Your task to perform on an android device: Go to Google Image 0: 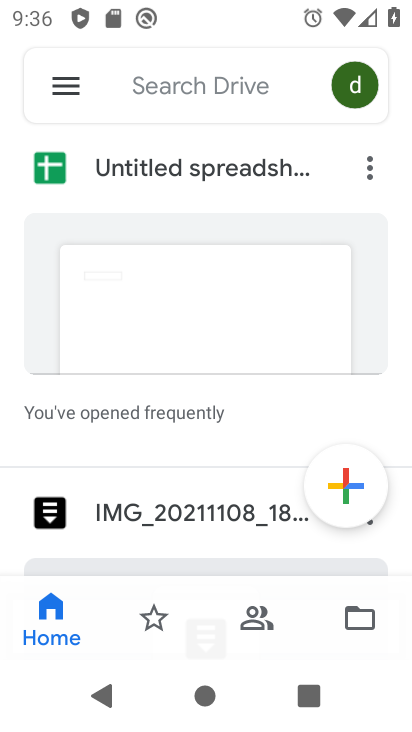
Step 0: press home button
Your task to perform on an android device: Go to Google Image 1: 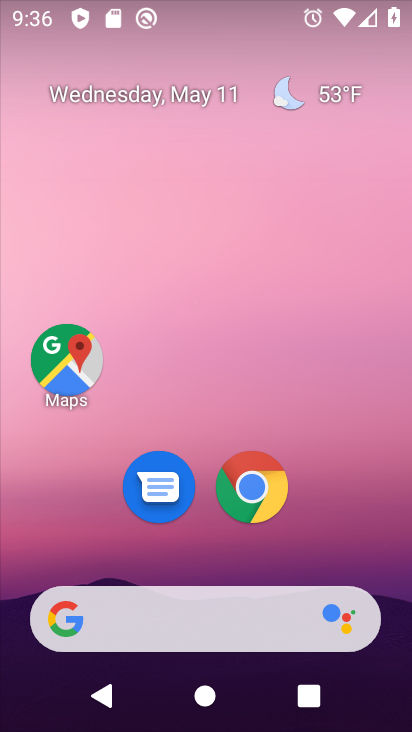
Step 1: drag from (213, 545) to (205, 148)
Your task to perform on an android device: Go to Google Image 2: 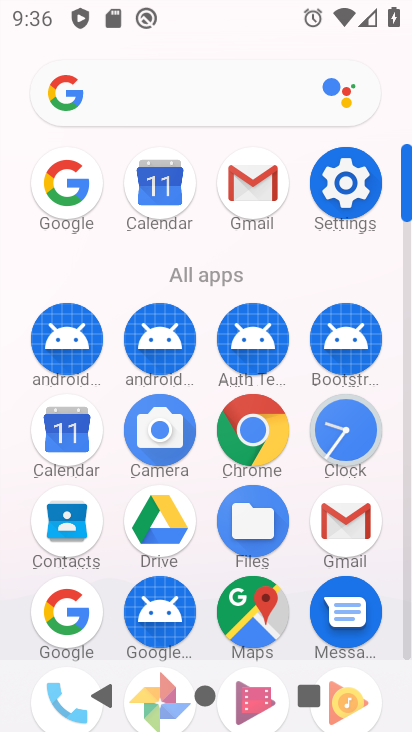
Step 2: click (95, 190)
Your task to perform on an android device: Go to Google Image 3: 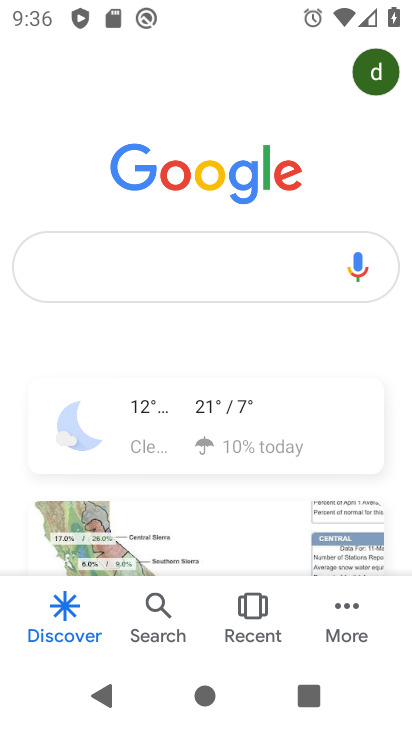
Step 3: task complete